Your task to perform on an android device: open app "Move to iOS" (install if not already installed) Image 0: 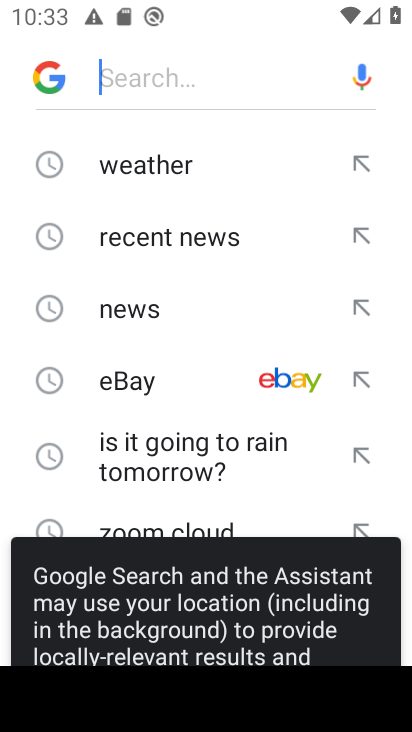
Step 0: press home button
Your task to perform on an android device: open app "Move to iOS" (install if not already installed) Image 1: 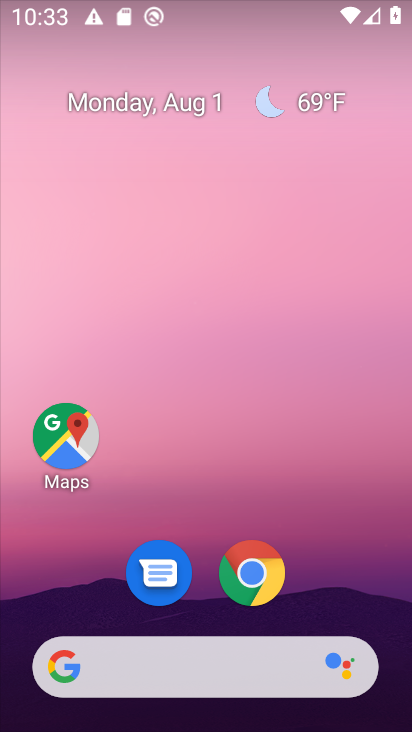
Step 1: drag from (342, 519) to (335, 69)
Your task to perform on an android device: open app "Move to iOS" (install if not already installed) Image 2: 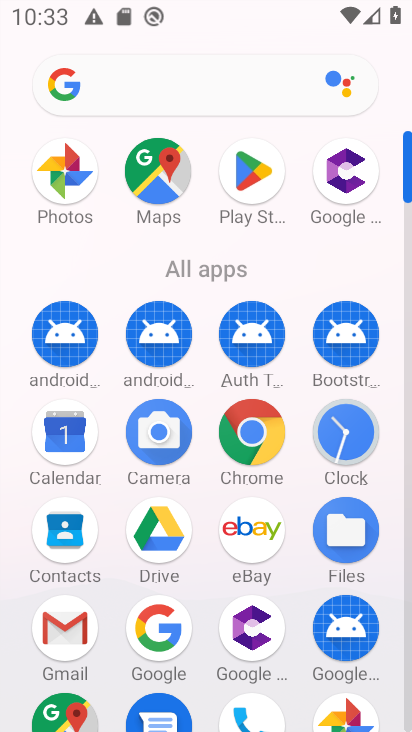
Step 2: click (257, 187)
Your task to perform on an android device: open app "Move to iOS" (install if not already installed) Image 3: 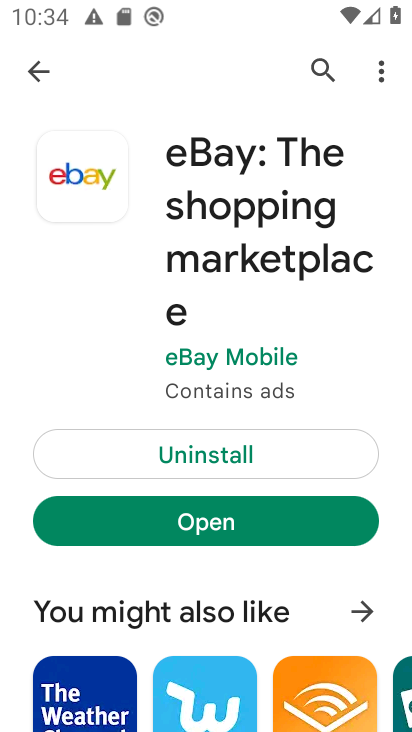
Step 3: click (321, 70)
Your task to perform on an android device: open app "Move to iOS" (install if not already installed) Image 4: 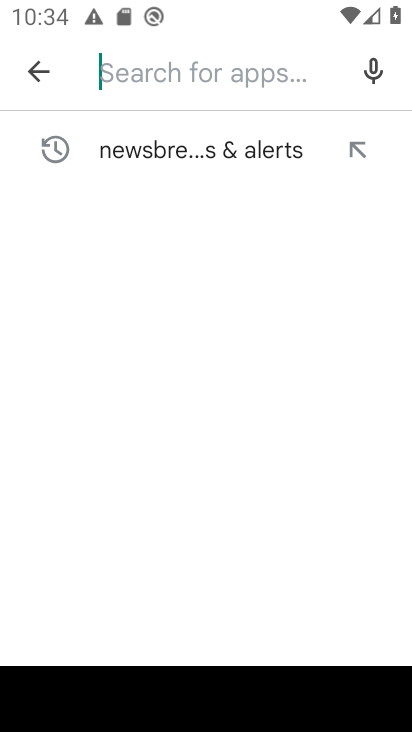
Step 4: type "move to ios"
Your task to perform on an android device: open app "Move to iOS" (install if not already installed) Image 5: 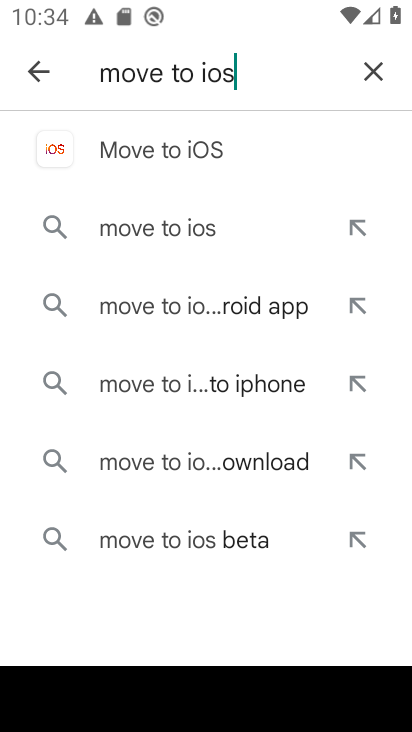
Step 5: click (246, 138)
Your task to perform on an android device: open app "Move to iOS" (install if not already installed) Image 6: 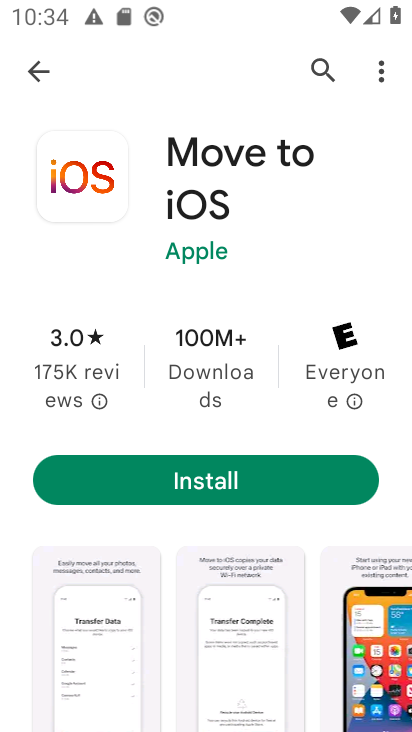
Step 6: click (302, 490)
Your task to perform on an android device: open app "Move to iOS" (install if not already installed) Image 7: 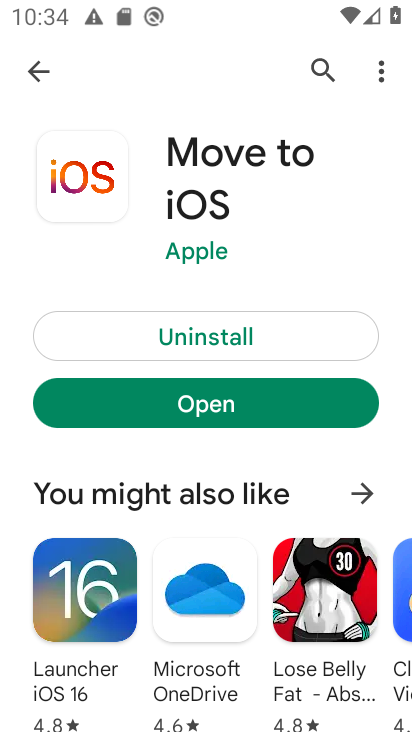
Step 7: click (294, 406)
Your task to perform on an android device: open app "Move to iOS" (install if not already installed) Image 8: 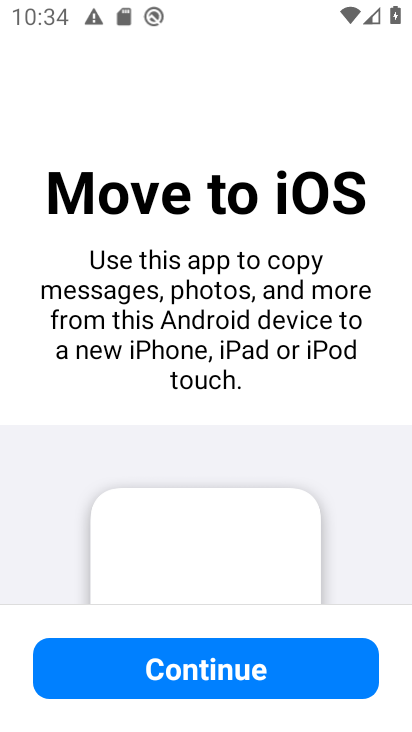
Step 8: task complete